Your task to perform on an android device: Open eBay Image 0: 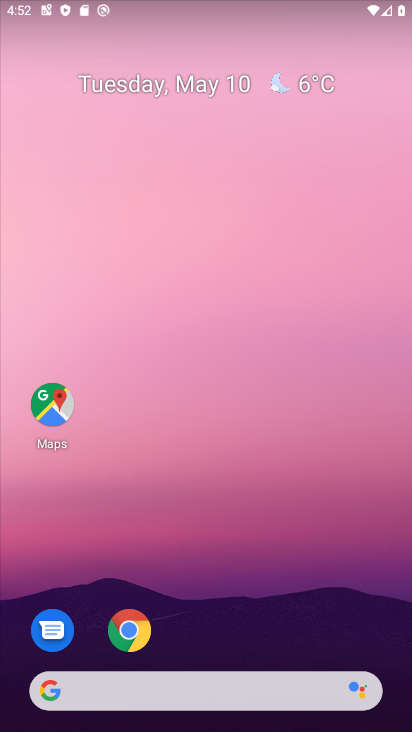
Step 0: click (116, 627)
Your task to perform on an android device: Open eBay Image 1: 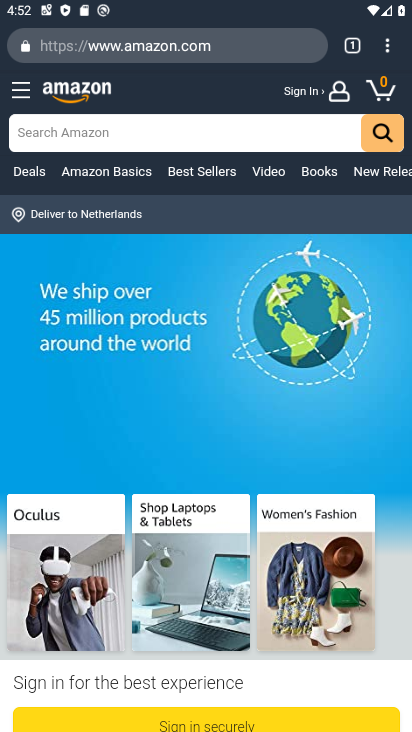
Step 1: click (197, 46)
Your task to perform on an android device: Open eBay Image 2: 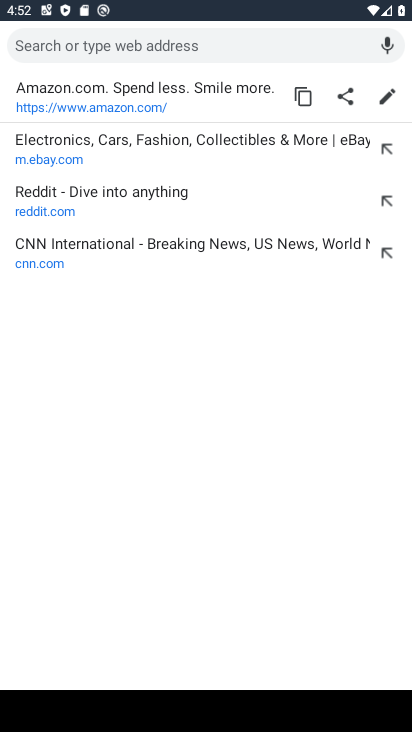
Step 2: type "ebay"
Your task to perform on an android device: Open eBay Image 3: 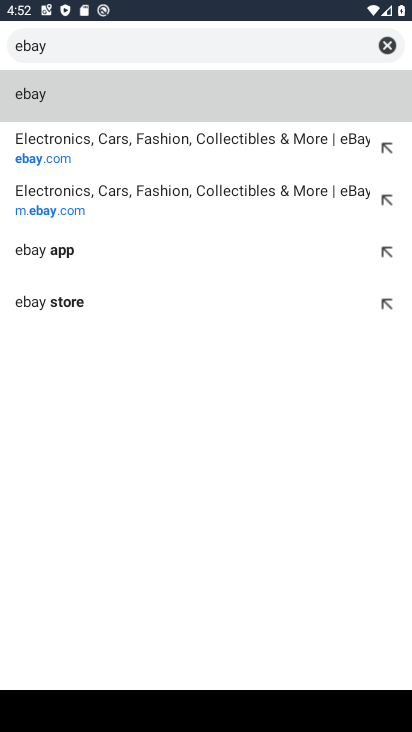
Step 3: click (52, 157)
Your task to perform on an android device: Open eBay Image 4: 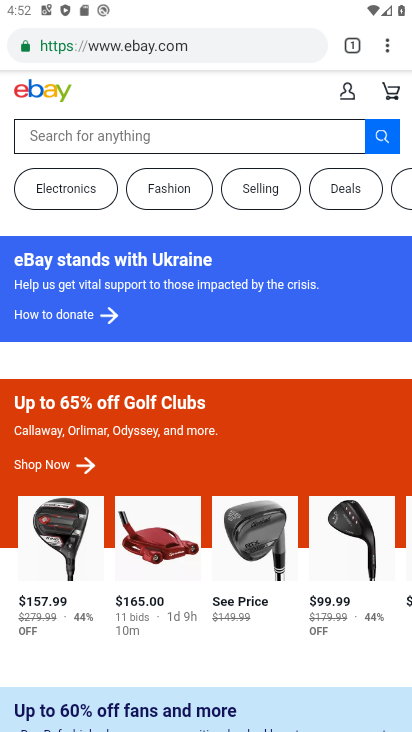
Step 4: task complete